Your task to perform on an android device: Is it going to rain tomorrow? Image 0: 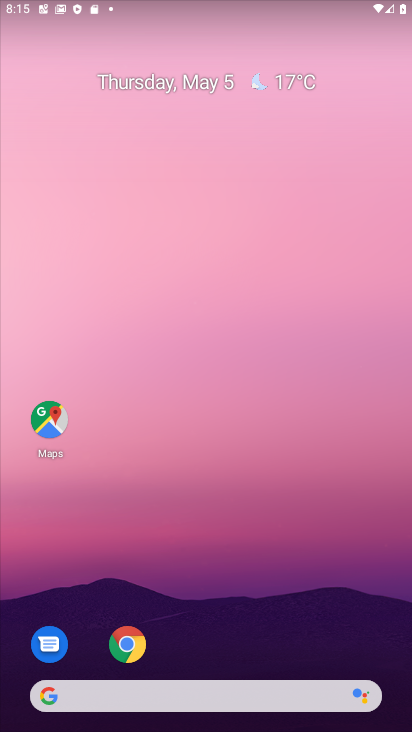
Step 0: click (131, 644)
Your task to perform on an android device: Is it going to rain tomorrow? Image 1: 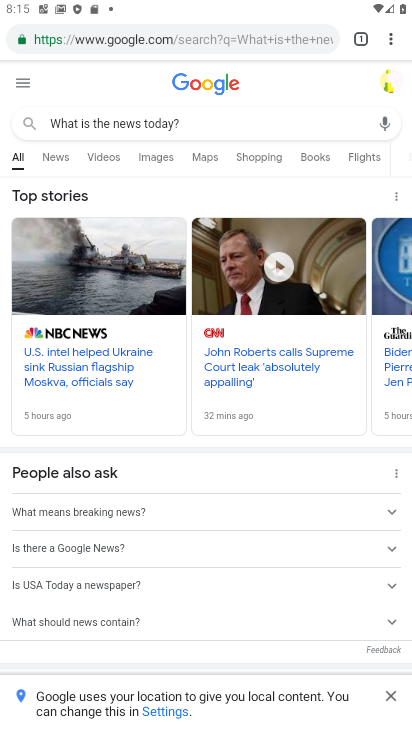
Step 1: click (205, 118)
Your task to perform on an android device: Is it going to rain tomorrow? Image 2: 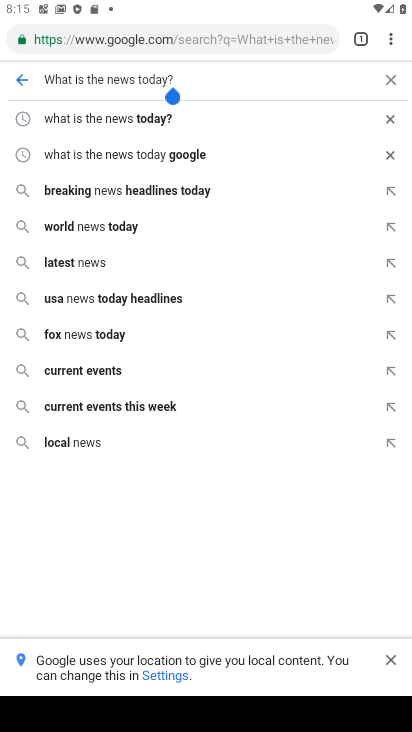
Step 2: click (392, 78)
Your task to perform on an android device: Is it going to rain tomorrow? Image 3: 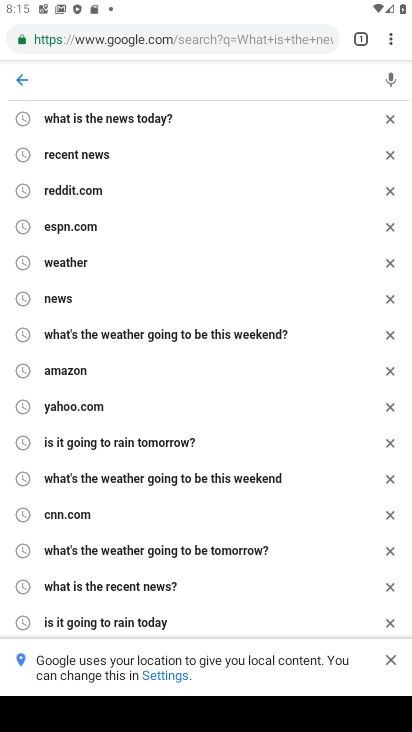
Step 3: type "Is it going to rain tomorrow?"
Your task to perform on an android device: Is it going to rain tomorrow? Image 4: 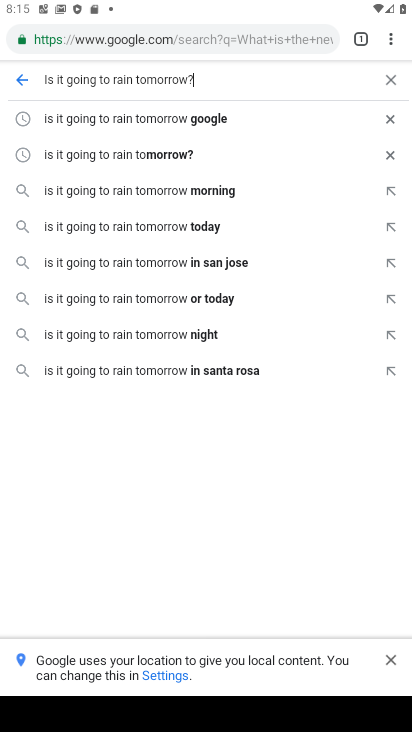
Step 4: click (153, 154)
Your task to perform on an android device: Is it going to rain tomorrow? Image 5: 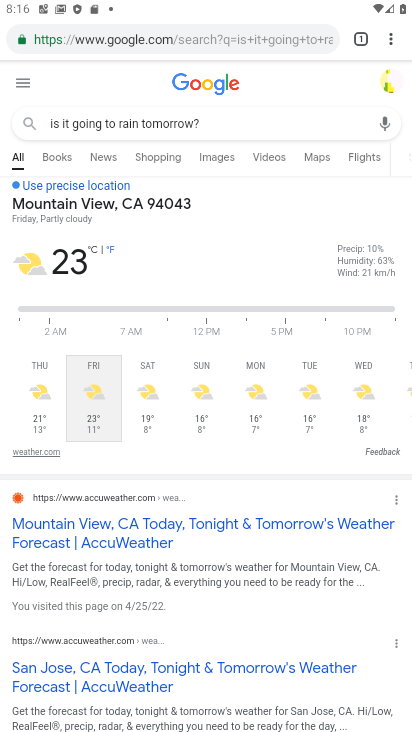
Step 5: task complete